Your task to perform on an android device: Open the map Image 0: 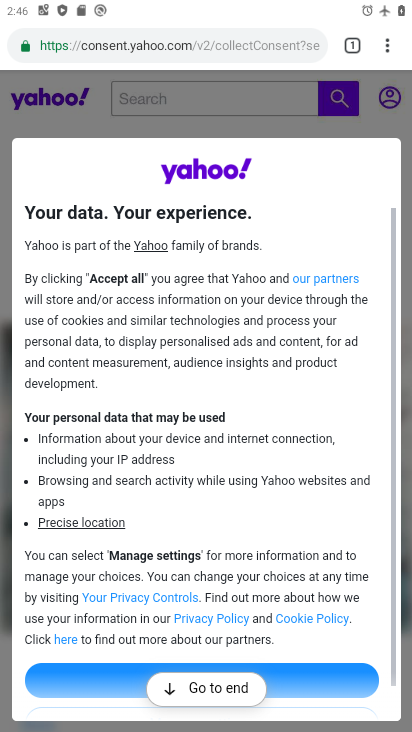
Step 0: task complete